Your task to perform on an android device: Open calendar and show me the fourth week of next month Image 0: 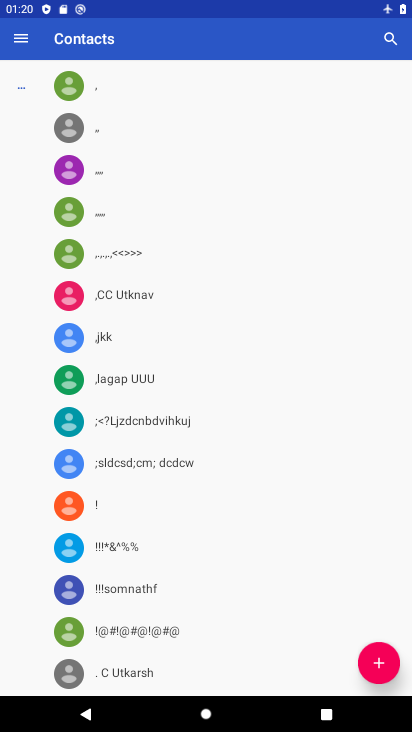
Step 0: press home button
Your task to perform on an android device: Open calendar and show me the fourth week of next month Image 1: 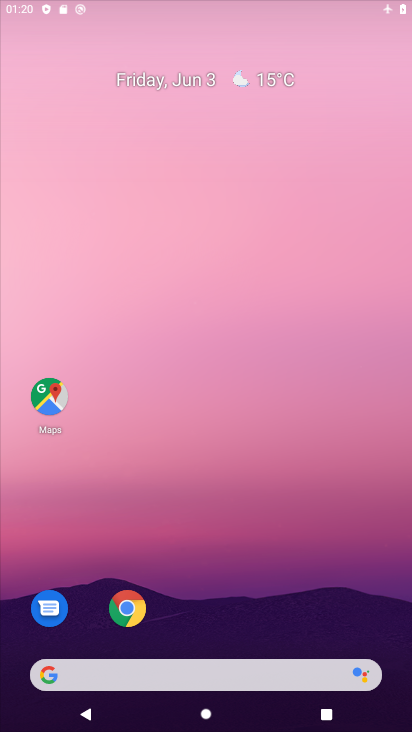
Step 1: drag from (291, 514) to (155, 199)
Your task to perform on an android device: Open calendar and show me the fourth week of next month Image 2: 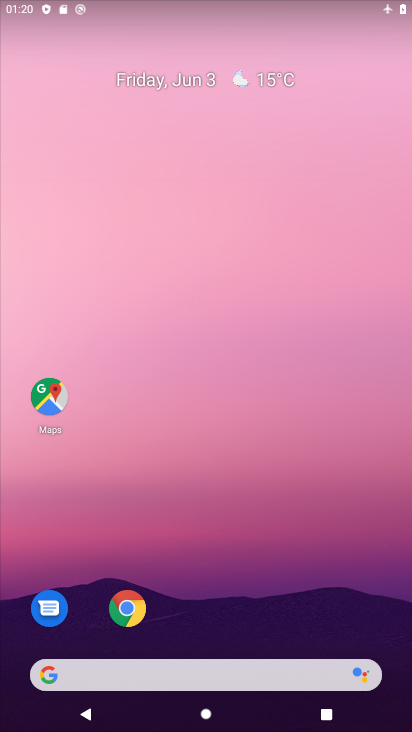
Step 2: drag from (234, 478) to (185, 171)
Your task to perform on an android device: Open calendar and show me the fourth week of next month Image 3: 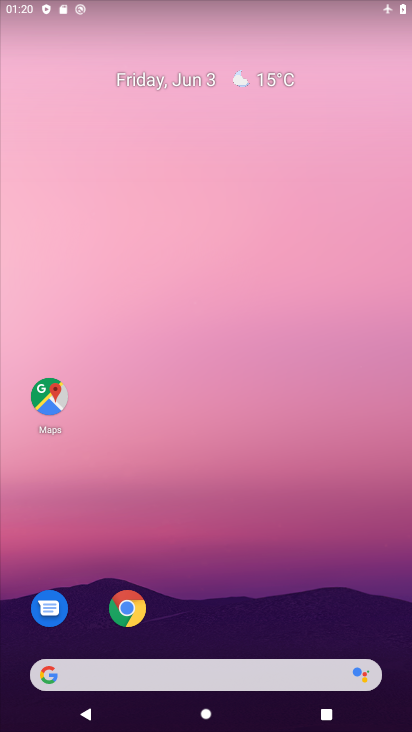
Step 3: drag from (245, 515) to (192, 112)
Your task to perform on an android device: Open calendar and show me the fourth week of next month Image 4: 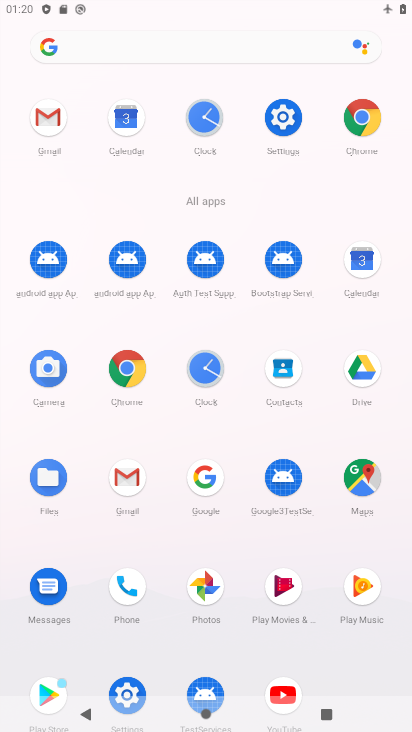
Step 4: click (361, 261)
Your task to perform on an android device: Open calendar and show me the fourth week of next month Image 5: 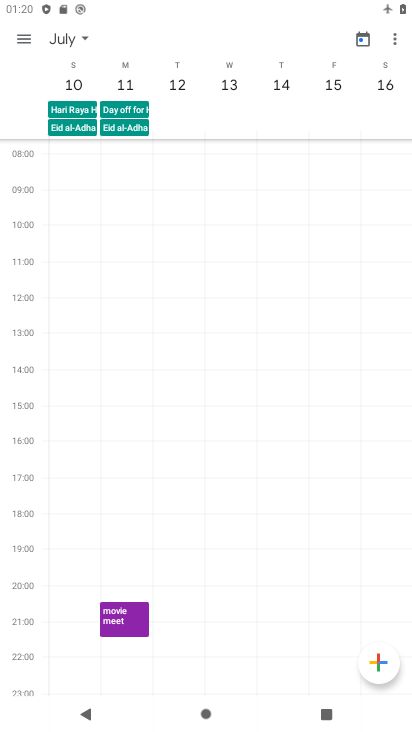
Step 5: click (59, 41)
Your task to perform on an android device: Open calendar and show me the fourth week of next month Image 6: 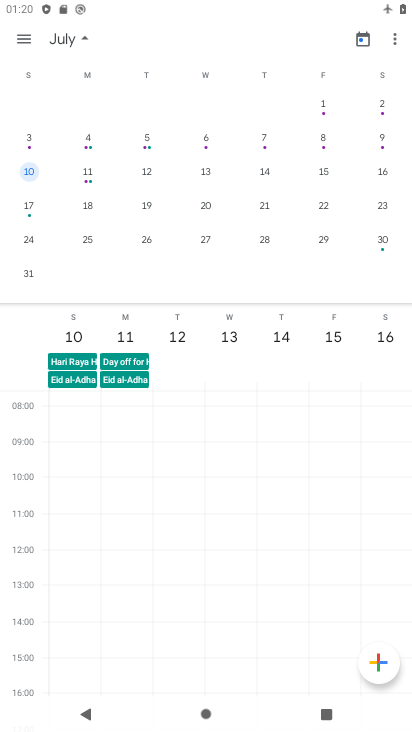
Step 6: click (27, 241)
Your task to perform on an android device: Open calendar and show me the fourth week of next month Image 7: 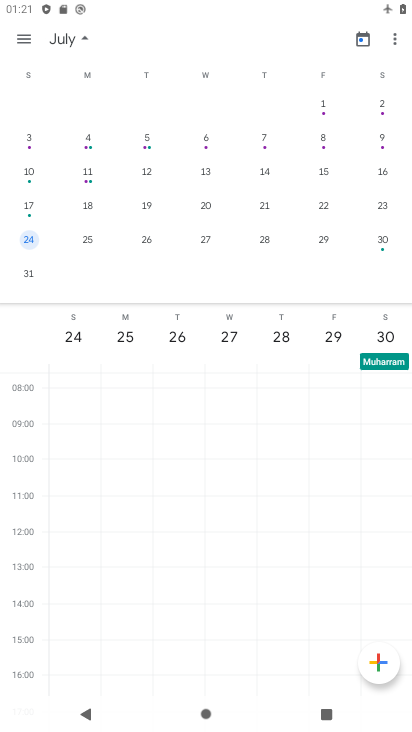
Step 7: task complete